Your task to perform on an android device: Open the Play Movies app and select the watchlist tab. Image 0: 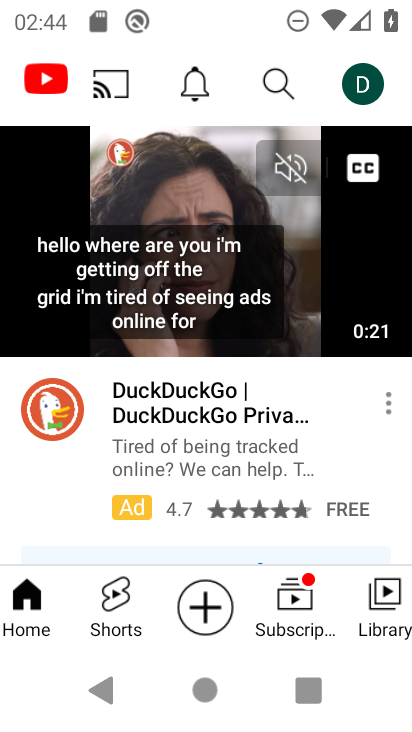
Step 0: press home button
Your task to perform on an android device: Open the Play Movies app and select the watchlist tab. Image 1: 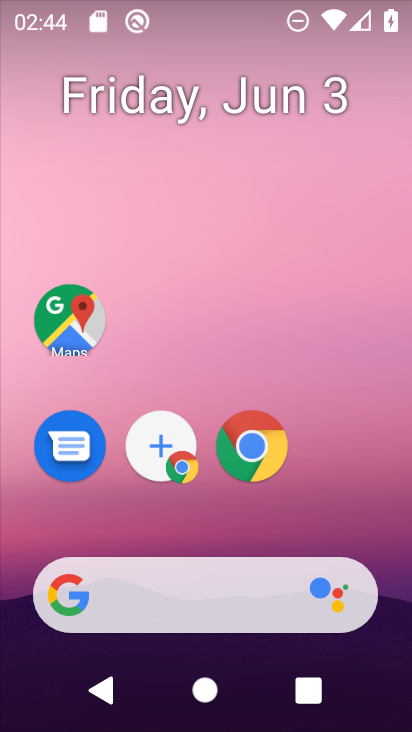
Step 1: drag from (253, 678) to (257, 141)
Your task to perform on an android device: Open the Play Movies app and select the watchlist tab. Image 2: 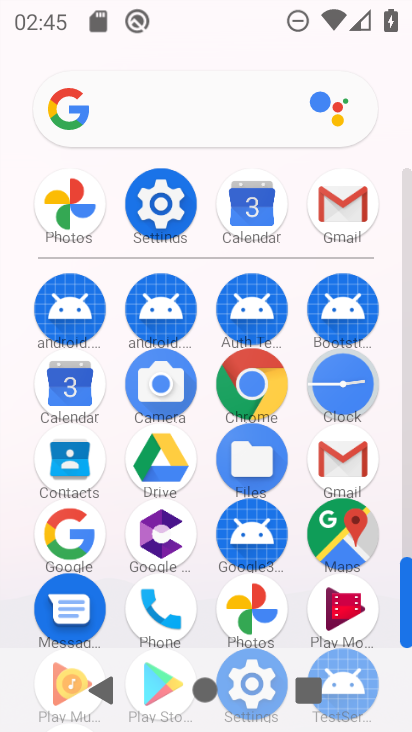
Step 2: click (344, 612)
Your task to perform on an android device: Open the Play Movies app and select the watchlist tab. Image 3: 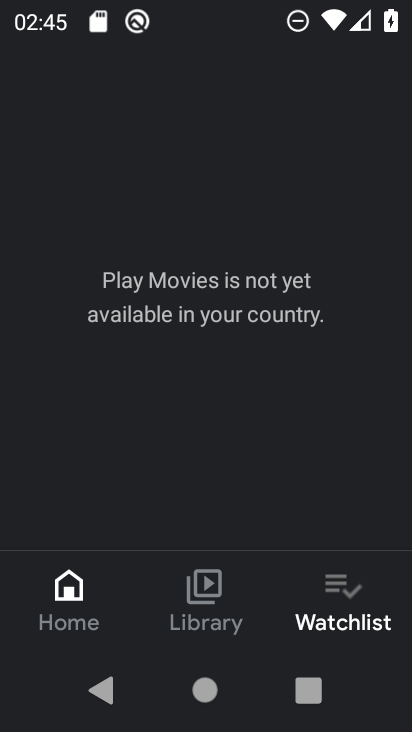
Step 3: task complete